Your task to perform on an android device: Open eBay Image 0: 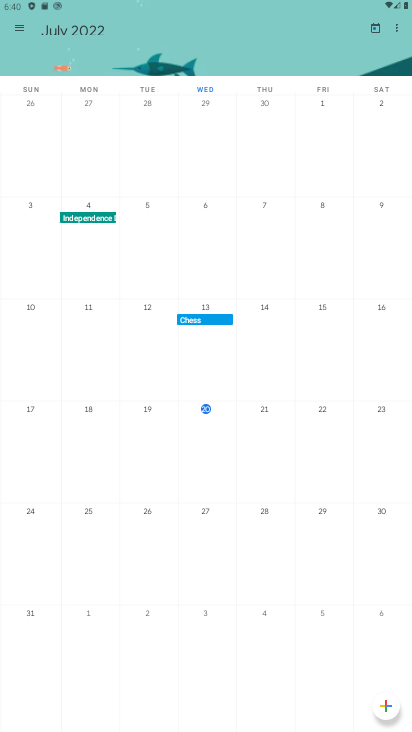
Step 0: press home button
Your task to perform on an android device: Open eBay Image 1: 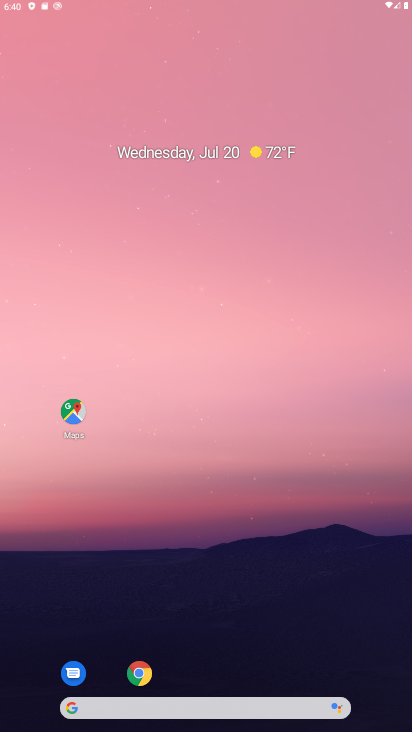
Step 1: drag from (384, 706) to (351, 52)
Your task to perform on an android device: Open eBay Image 2: 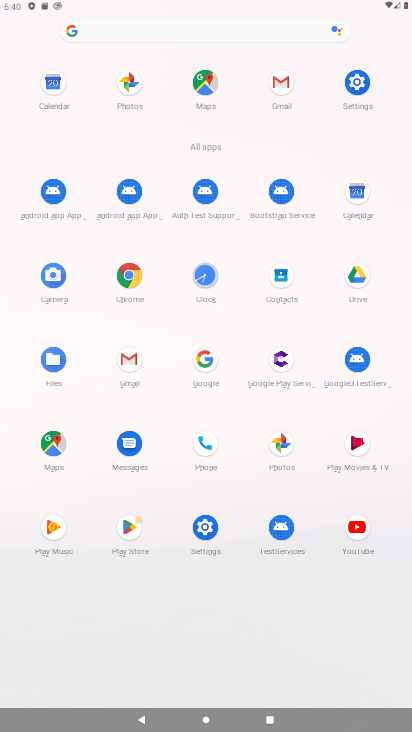
Step 2: click (193, 361)
Your task to perform on an android device: Open eBay Image 3: 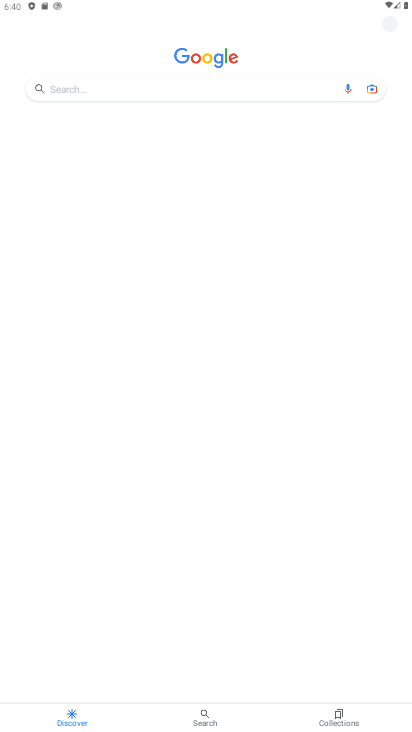
Step 3: click (127, 81)
Your task to perform on an android device: Open eBay Image 4: 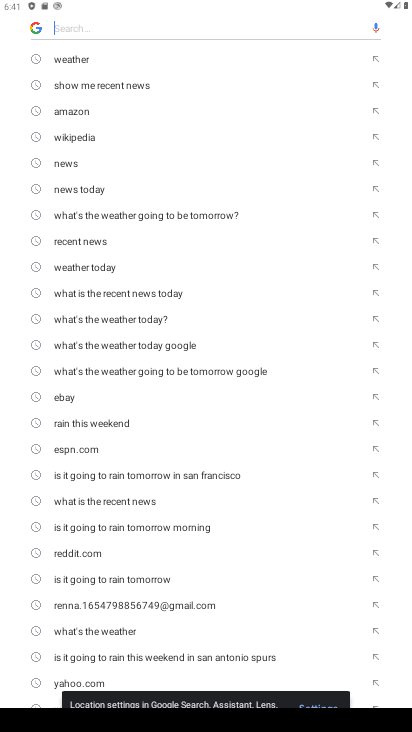
Step 4: click (57, 400)
Your task to perform on an android device: Open eBay Image 5: 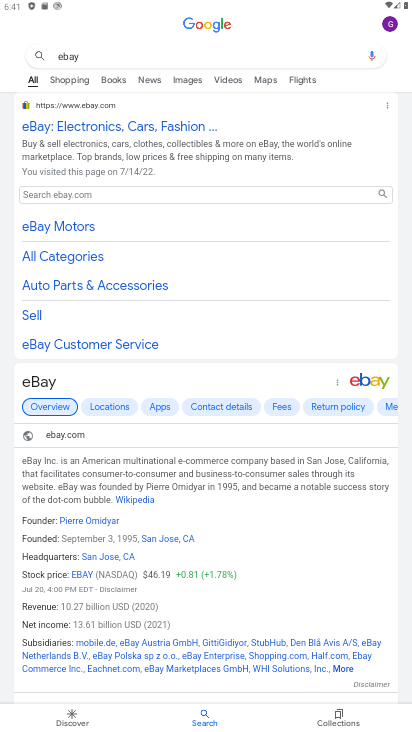
Step 5: task complete